Your task to perform on an android device: turn on wifi Image 0: 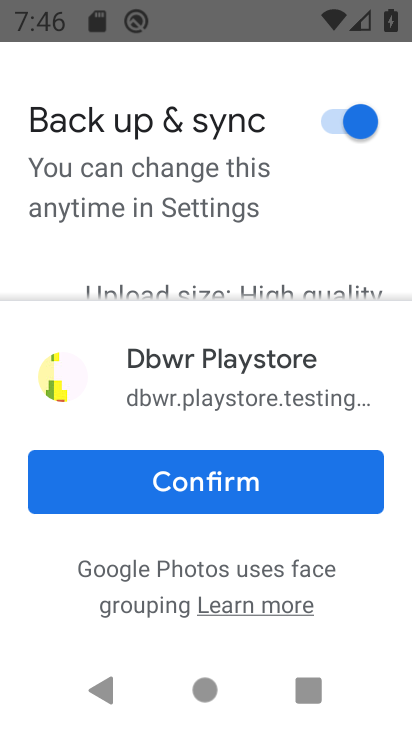
Step 0: press back button
Your task to perform on an android device: turn on wifi Image 1: 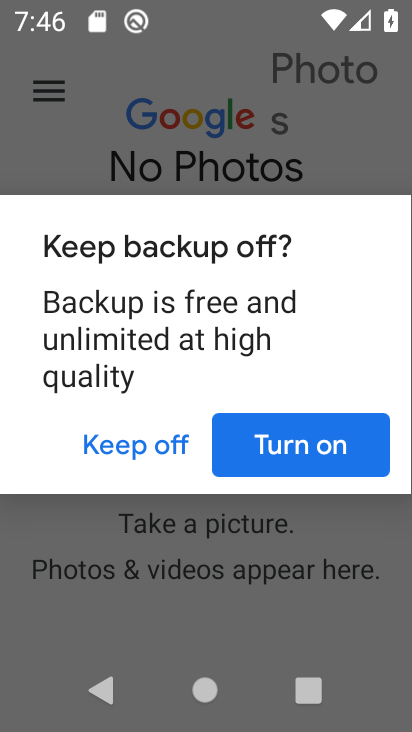
Step 1: press home button
Your task to perform on an android device: turn on wifi Image 2: 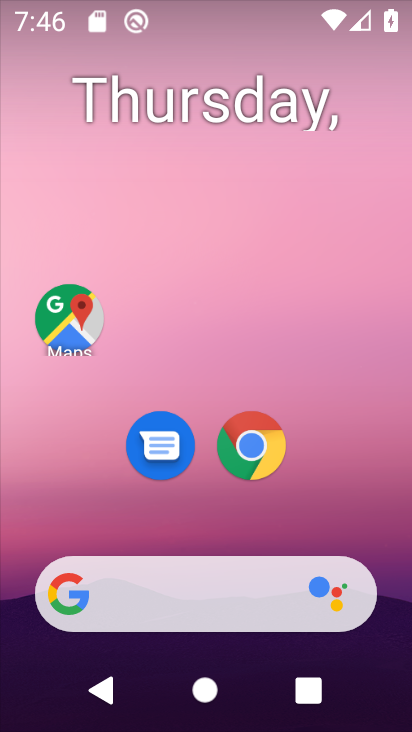
Step 2: drag from (351, 681) to (202, 122)
Your task to perform on an android device: turn on wifi Image 3: 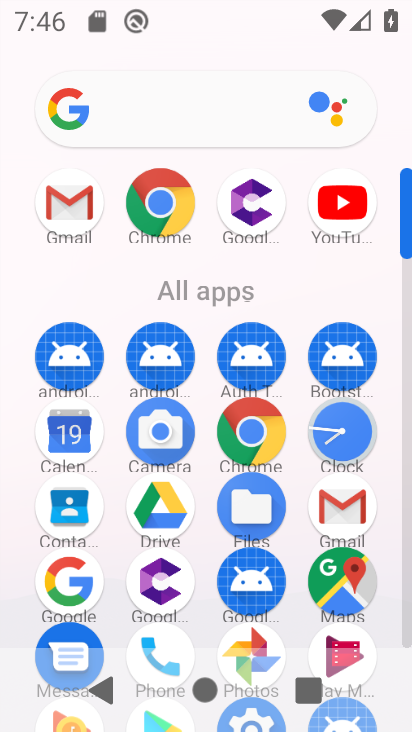
Step 3: drag from (210, 501) to (203, 175)
Your task to perform on an android device: turn on wifi Image 4: 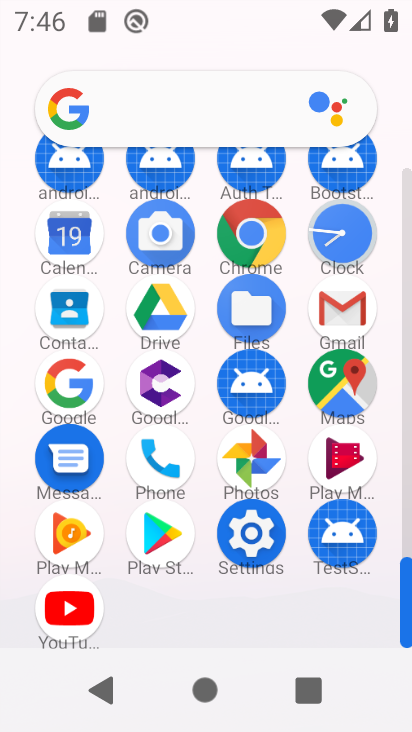
Step 4: drag from (183, 430) to (160, 163)
Your task to perform on an android device: turn on wifi Image 5: 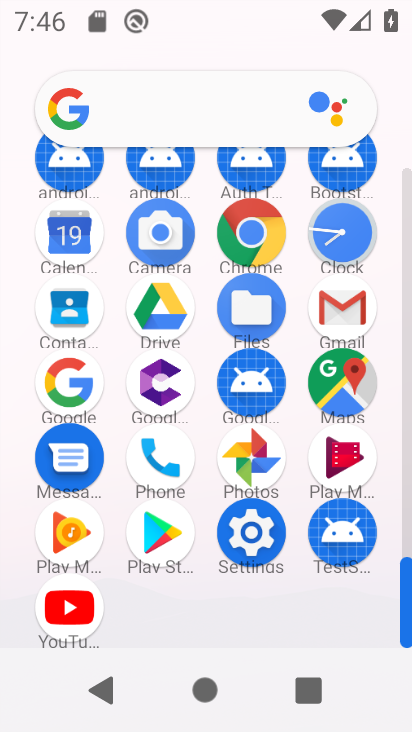
Step 5: click (250, 531)
Your task to perform on an android device: turn on wifi Image 6: 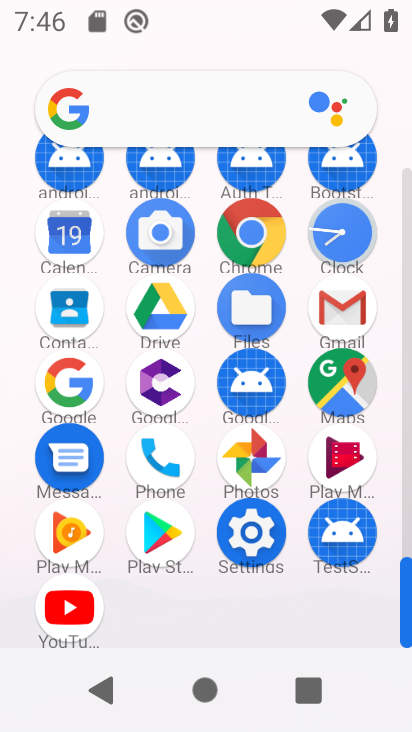
Step 6: click (250, 531)
Your task to perform on an android device: turn on wifi Image 7: 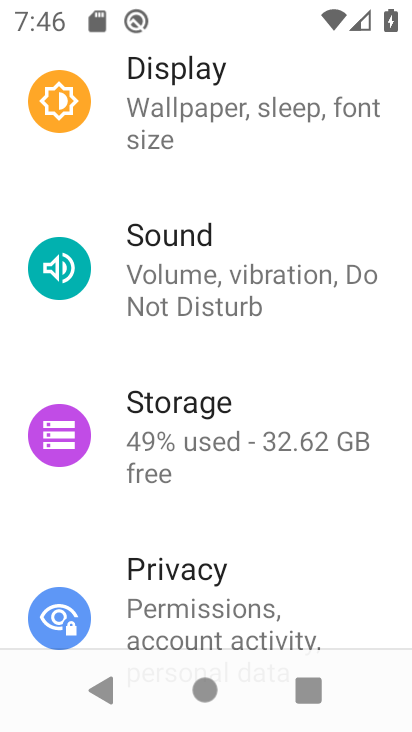
Step 7: drag from (209, 460) to (196, 95)
Your task to perform on an android device: turn on wifi Image 8: 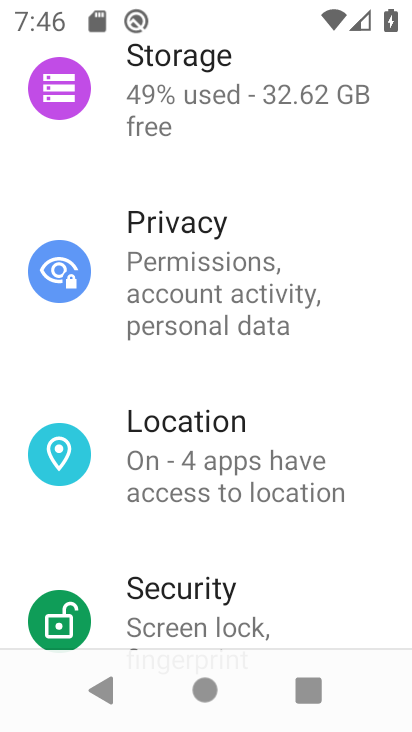
Step 8: drag from (213, 428) to (214, 0)
Your task to perform on an android device: turn on wifi Image 9: 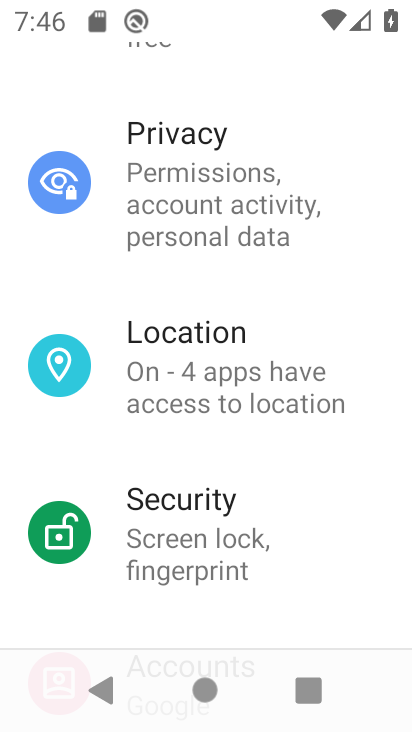
Step 9: drag from (243, 561) to (145, 135)
Your task to perform on an android device: turn on wifi Image 10: 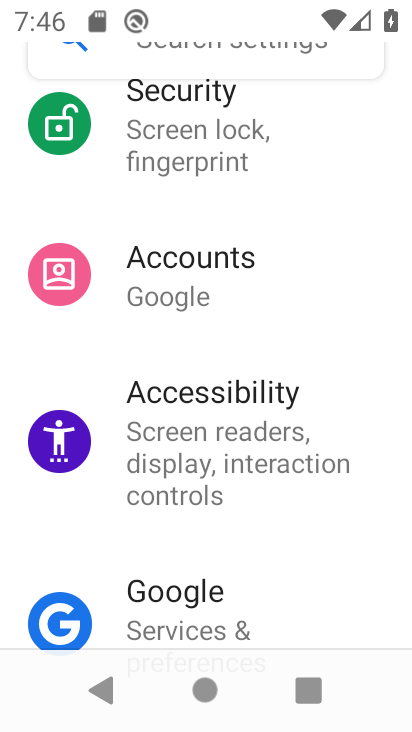
Step 10: drag from (168, 464) to (162, 90)
Your task to perform on an android device: turn on wifi Image 11: 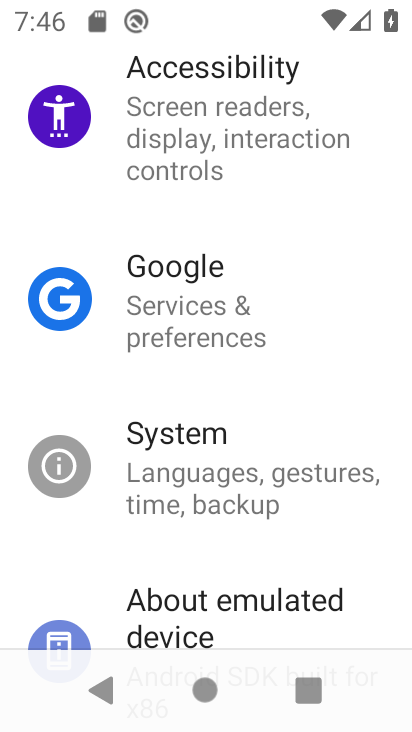
Step 11: drag from (200, 141) to (253, 498)
Your task to perform on an android device: turn on wifi Image 12: 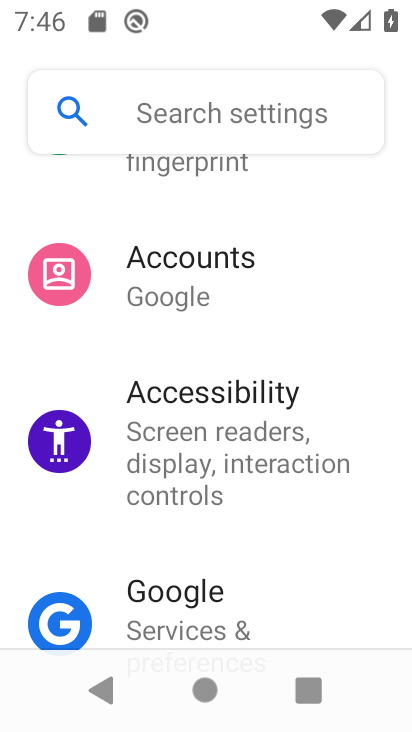
Step 12: drag from (186, 244) to (243, 522)
Your task to perform on an android device: turn on wifi Image 13: 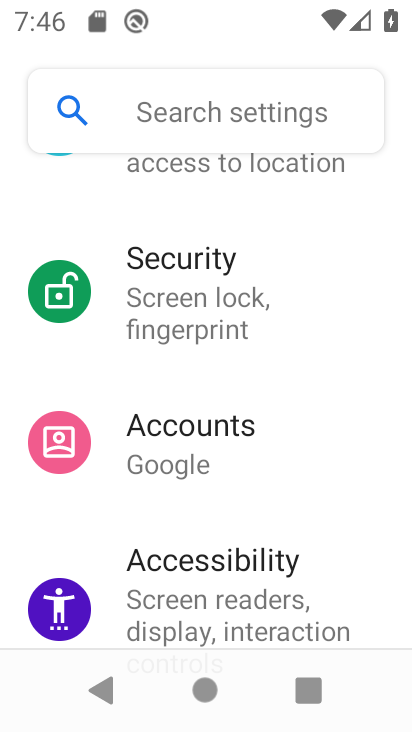
Step 13: drag from (208, 290) to (256, 628)
Your task to perform on an android device: turn on wifi Image 14: 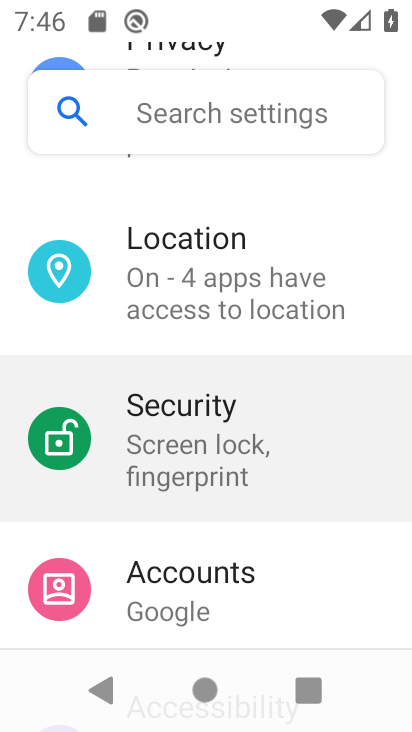
Step 14: drag from (202, 333) to (221, 592)
Your task to perform on an android device: turn on wifi Image 15: 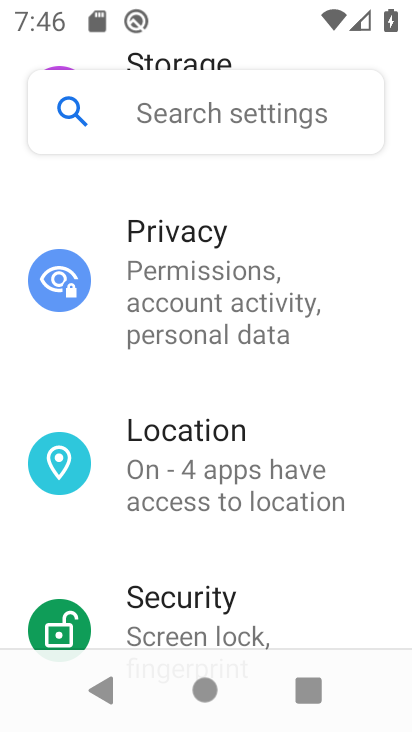
Step 15: drag from (168, 326) to (217, 612)
Your task to perform on an android device: turn on wifi Image 16: 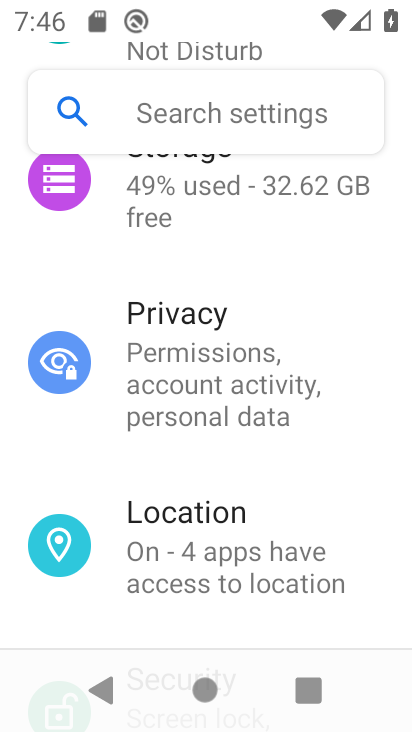
Step 16: drag from (178, 254) to (282, 653)
Your task to perform on an android device: turn on wifi Image 17: 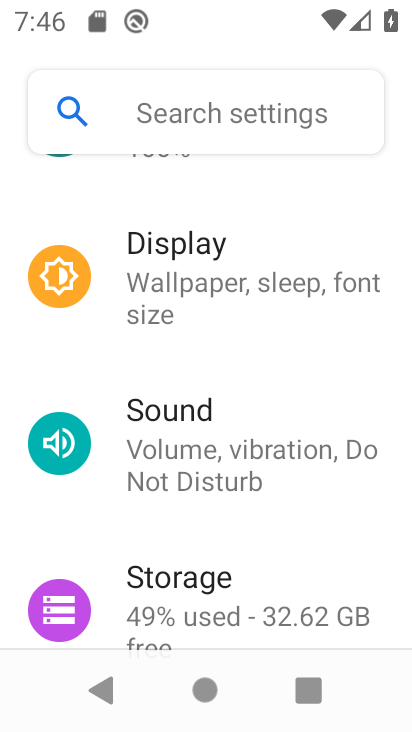
Step 17: drag from (223, 339) to (272, 646)
Your task to perform on an android device: turn on wifi Image 18: 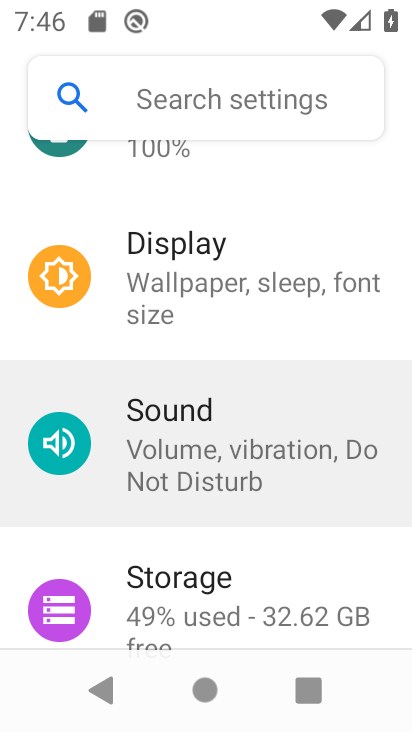
Step 18: drag from (205, 330) to (205, 675)
Your task to perform on an android device: turn on wifi Image 19: 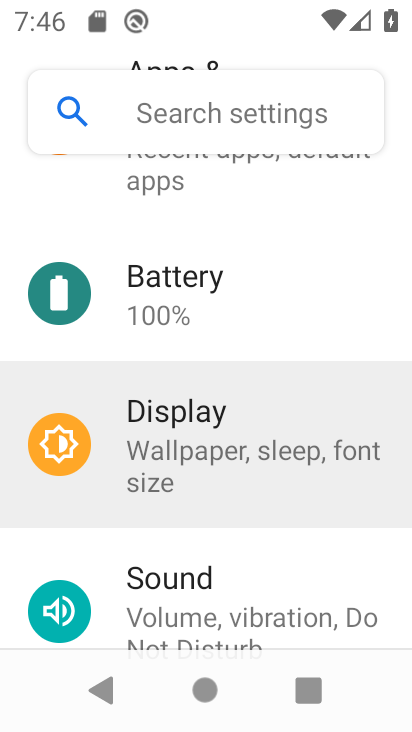
Step 19: drag from (174, 295) to (226, 728)
Your task to perform on an android device: turn on wifi Image 20: 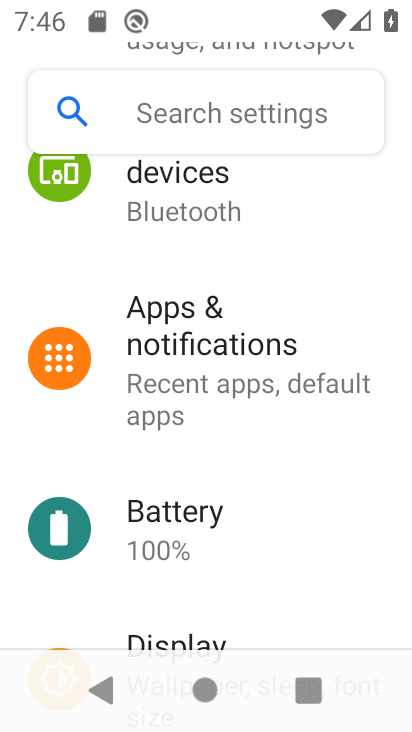
Step 20: drag from (205, 299) to (226, 698)
Your task to perform on an android device: turn on wifi Image 21: 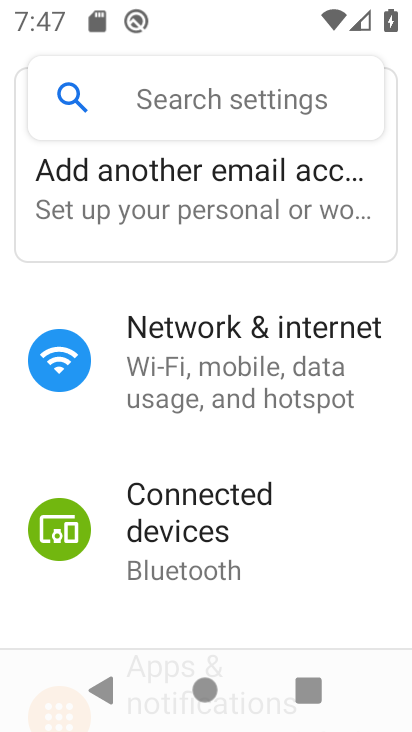
Step 21: drag from (118, 276) to (203, 714)
Your task to perform on an android device: turn on wifi Image 22: 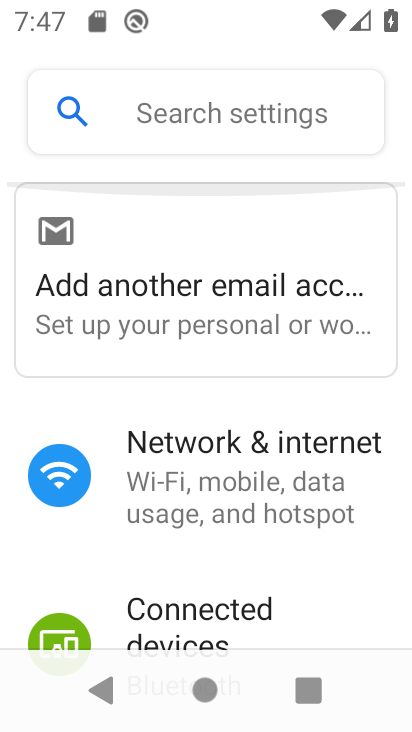
Step 22: click (187, 366)
Your task to perform on an android device: turn on wifi Image 23: 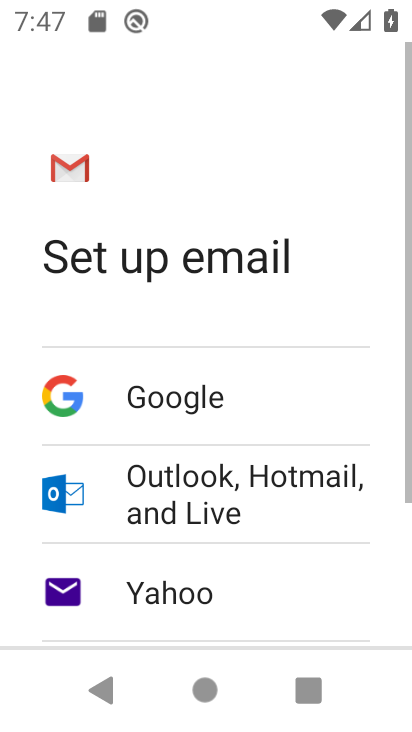
Step 23: press back button
Your task to perform on an android device: turn on wifi Image 24: 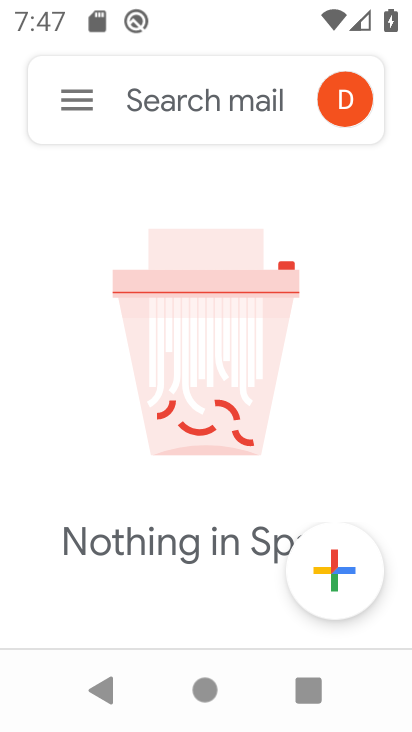
Step 24: press back button
Your task to perform on an android device: turn on wifi Image 25: 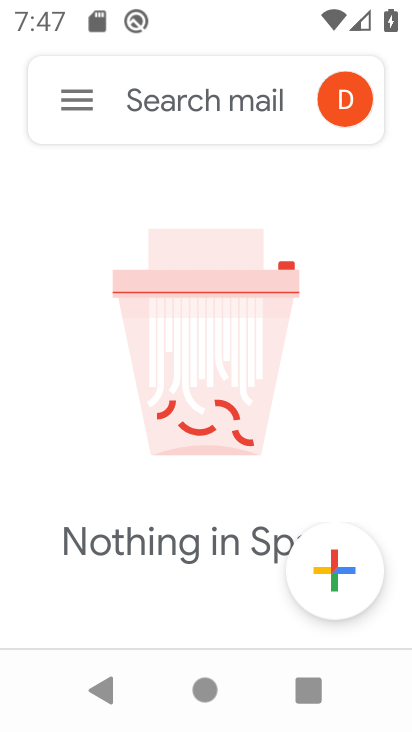
Step 25: press back button
Your task to perform on an android device: turn on wifi Image 26: 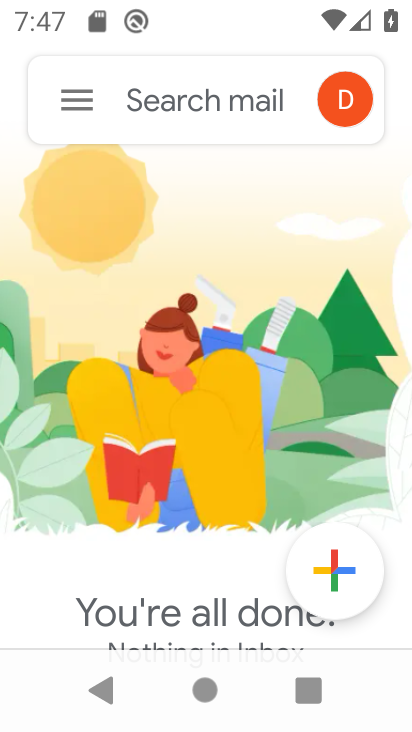
Step 26: press back button
Your task to perform on an android device: turn on wifi Image 27: 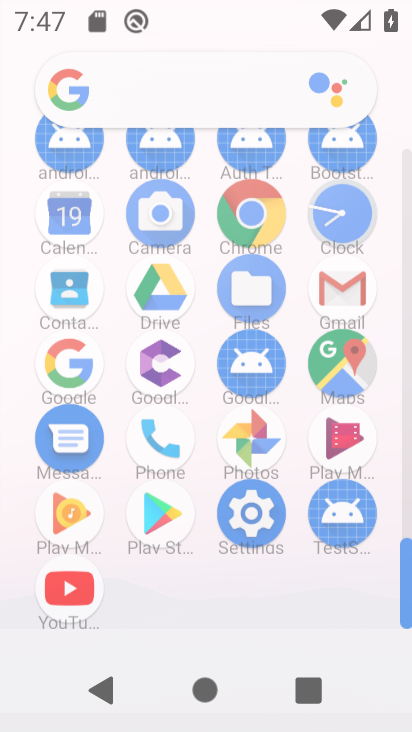
Step 27: drag from (275, 602) to (190, 49)
Your task to perform on an android device: turn on wifi Image 28: 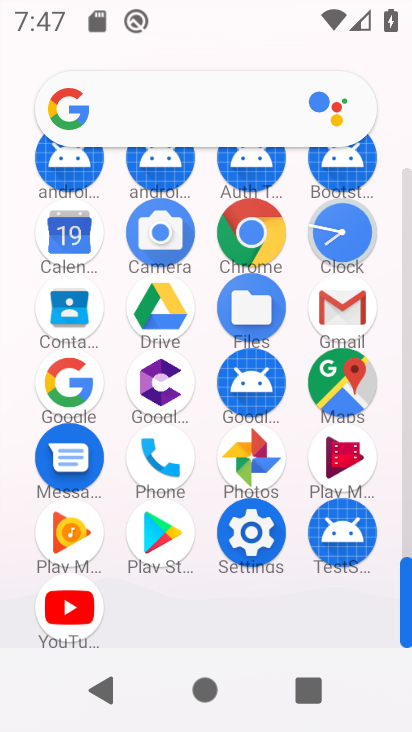
Step 28: click (267, 229)
Your task to perform on an android device: turn on wifi Image 29: 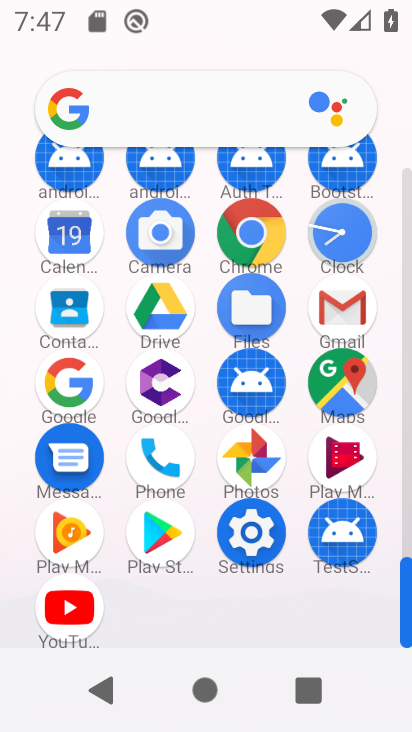
Step 29: drag from (267, 229) to (306, 672)
Your task to perform on an android device: turn on wifi Image 30: 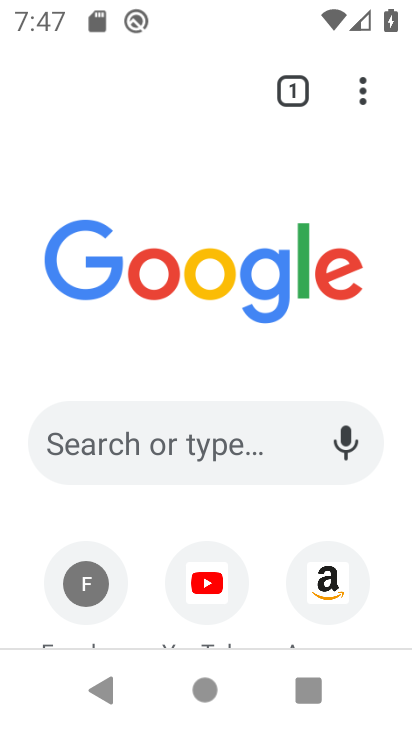
Step 30: press back button
Your task to perform on an android device: turn on wifi Image 31: 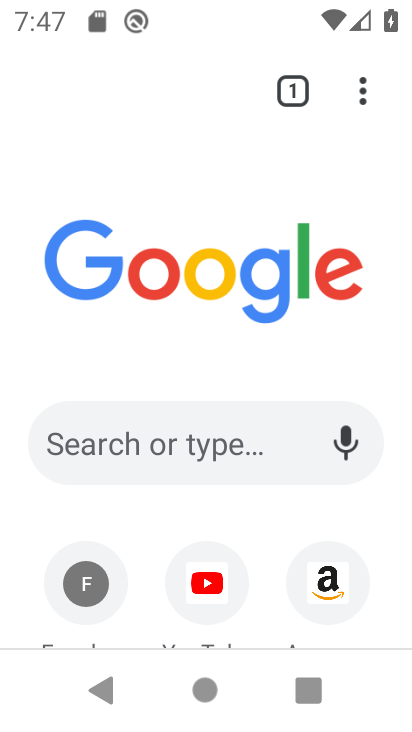
Step 31: press back button
Your task to perform on an android device: turn on wifi Image 32: 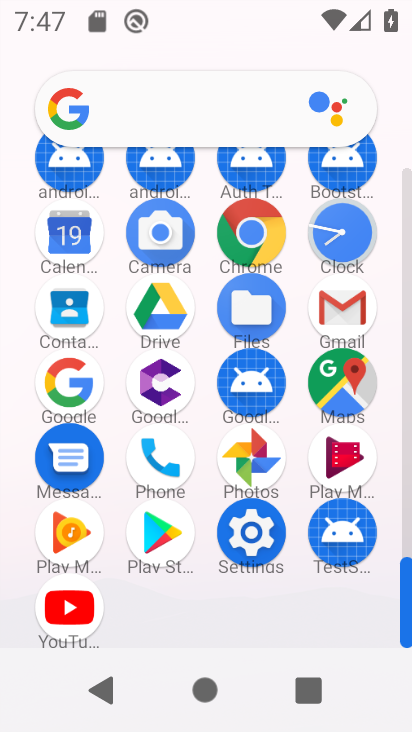
Step 32: press back button
Your task to perform on an android device: turn on wifi Image 33: 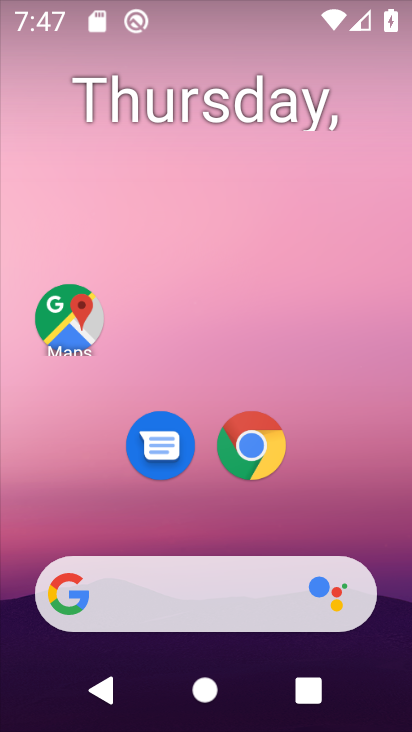
Step 33: drag from (259, 555) to (155, 62)
Your task to perform on an android device: turn on wifi Image 34: 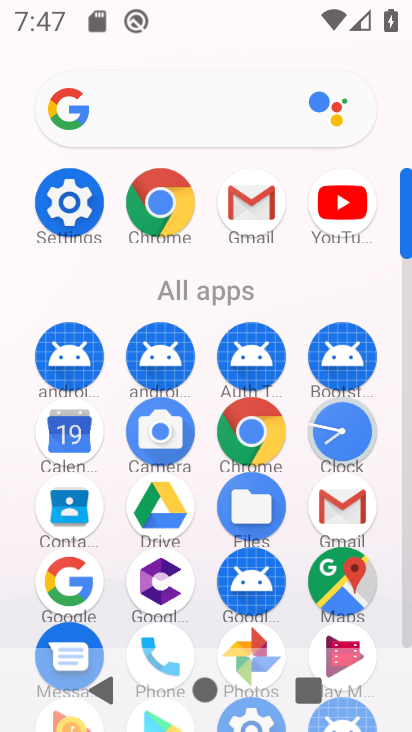
Step 34: drag from (262, 512) to (225, 188)
Your task to perform on an android device: turn on wifi Image 35: 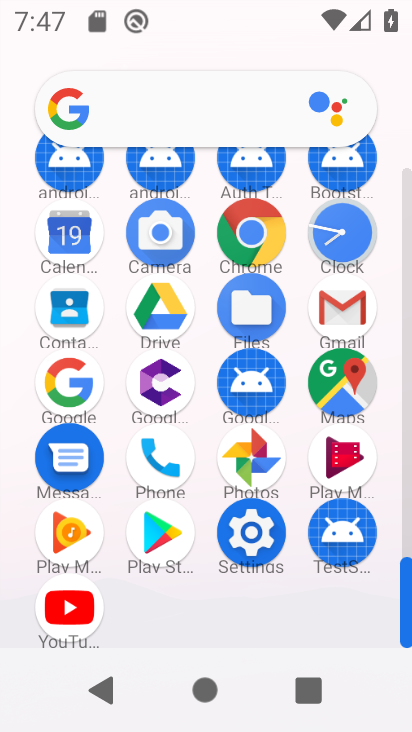
Step 35: click (263, 531)
Your task to perform on an android device: turn on wifi Image 36: 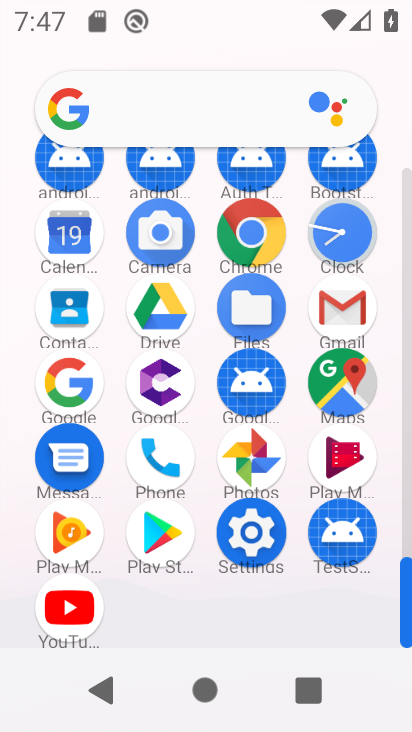
Step 36: click (263, 531)
Your task to perform on an android device: turn on wifi Image 37: 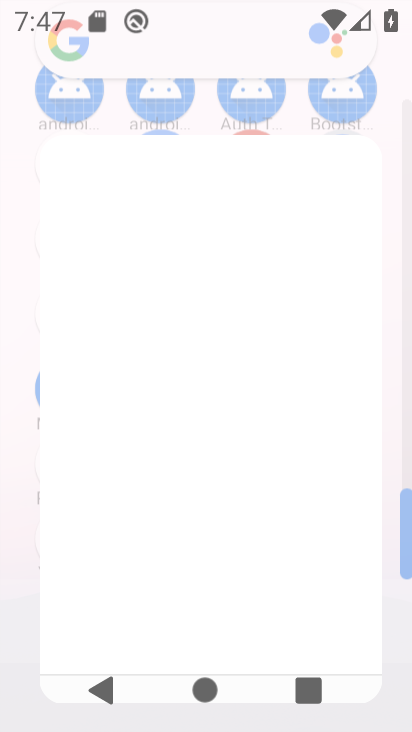
Step 37: click (264, 538)
Your task to perform on an android device: turn on wifi Image 38: 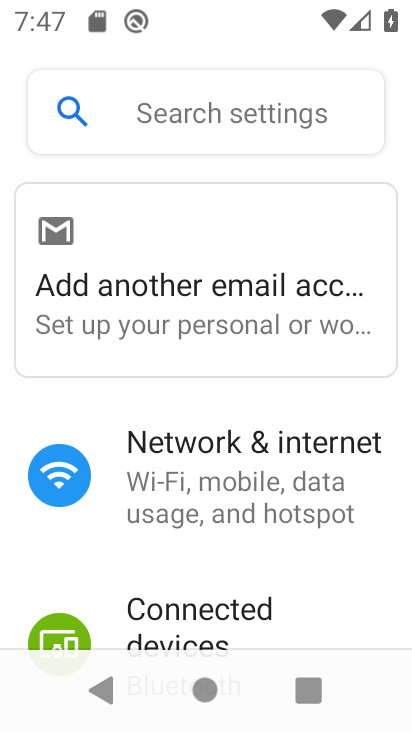
Step 38: click (224, 489)
Your task to perform on an android device: turn on wifi Image 39: 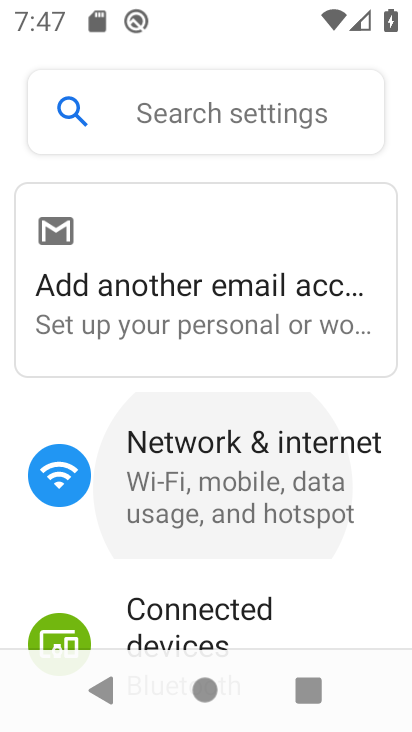
Step 39: click (224, 490)
Your task to perform on an android device: turn on wifi Image 40: 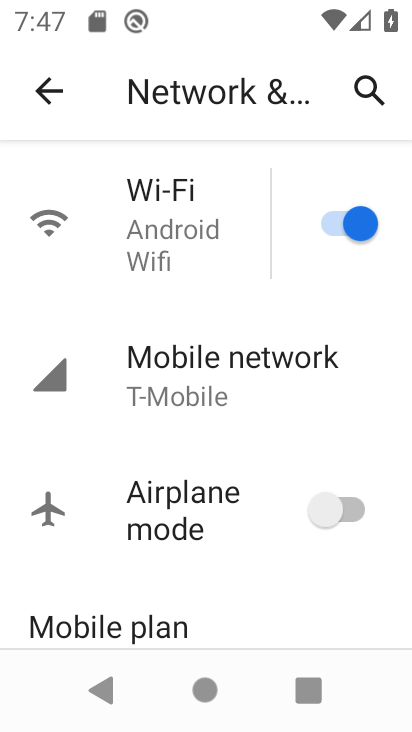
Step 40: task complete